Your task to perform on an android device: Open calendar and show me the third week of next month Image 0: 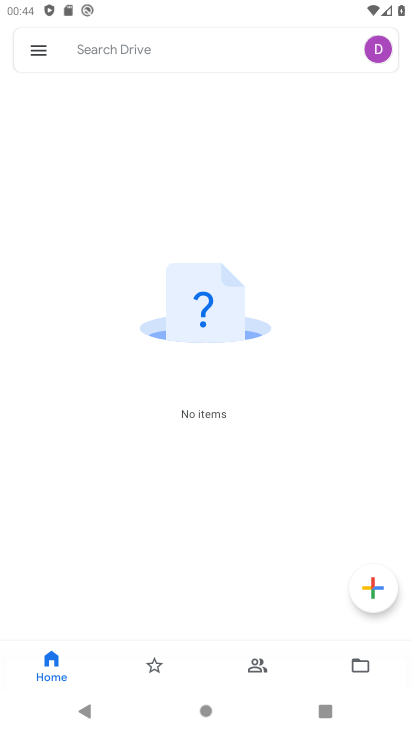
Step 0: press back button
Your task to perform on an android device: Open calendar and show me the third week of next month Image 1: 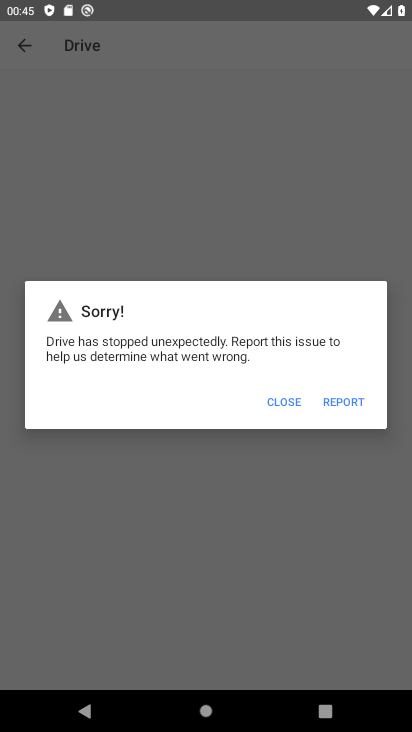
Step 1: press home button
Your task to perform on an android device: Open calendar and show me the third week of next month Image 2: 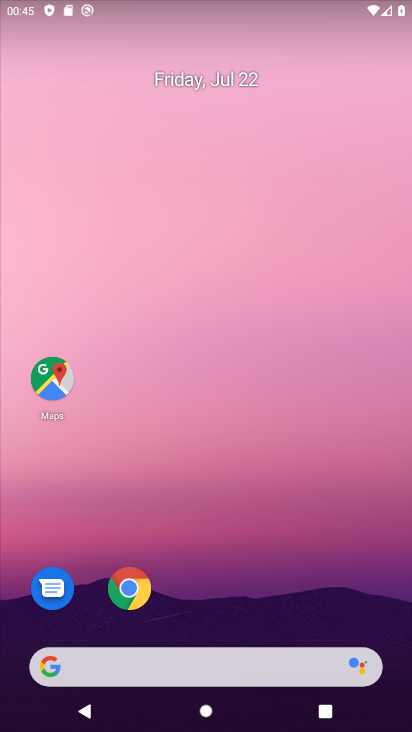
Step 2: drag from (227, 593) to (282, 0)
Your task to perform on an android device: Open calendar and show me the third week of next month Image 3: 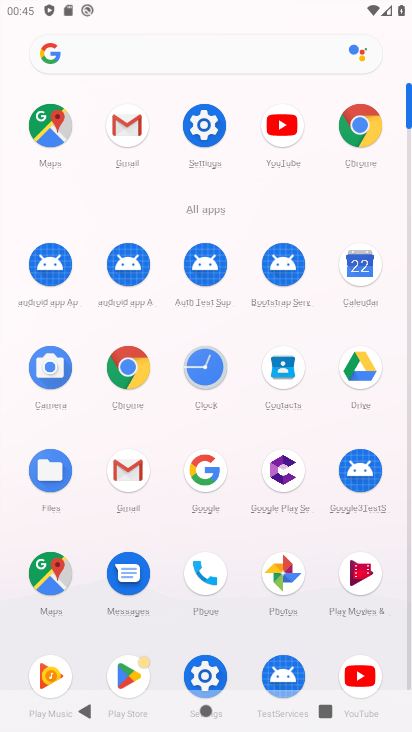
Step 3: click (366, 262)
Your task to perform on an android device: Open calendar and show me the third week of next month Image 4: 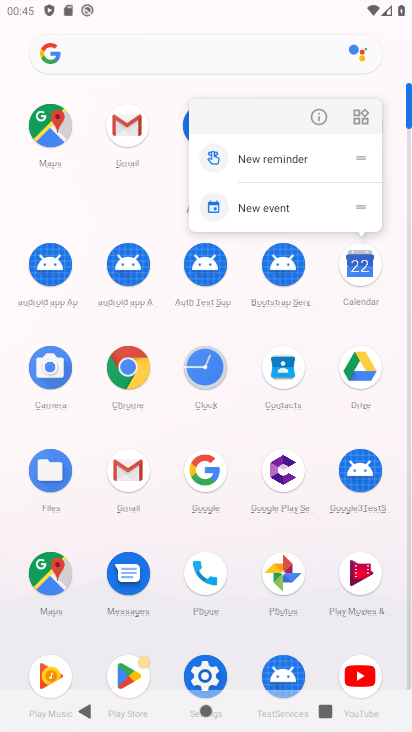
Step 4: click (270, 373)
Your task to perform on an android device: Open calendar and show me the third week of next month Image 5: 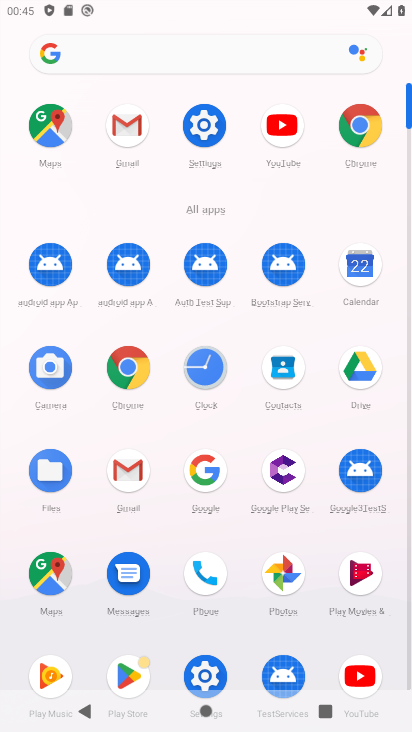
Step 5: click (276, 364)
Your task to perform on an android device: Open calendar and show me the third week of next month Image 6: 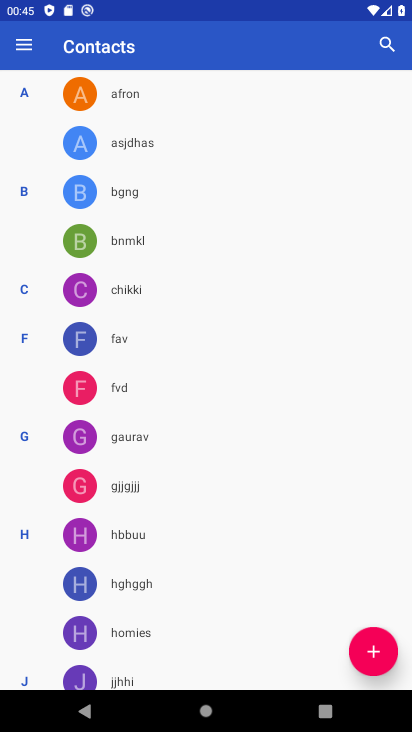
Step 6: press back button
Your task to perform on an android device: Open calendar and show me the third week of next month Image 7: 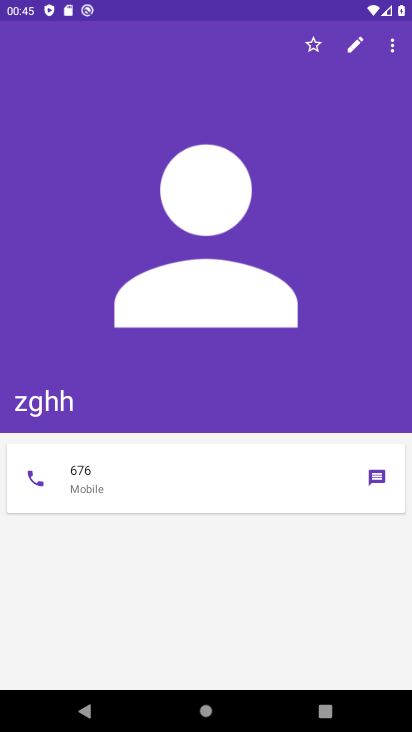
Step 7: press back button
Your task to perform on an android device: Open calendar and show me the third week of next month Image 8: 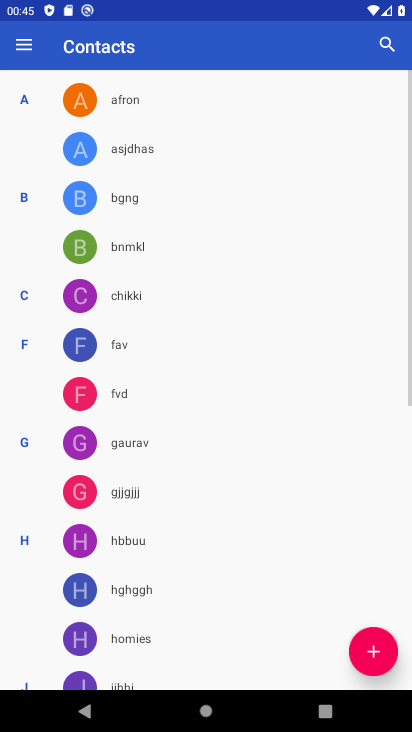
Step 8: press back button
Your task to perform on an android device: Open calendar and show me the third week of next month Image 9: 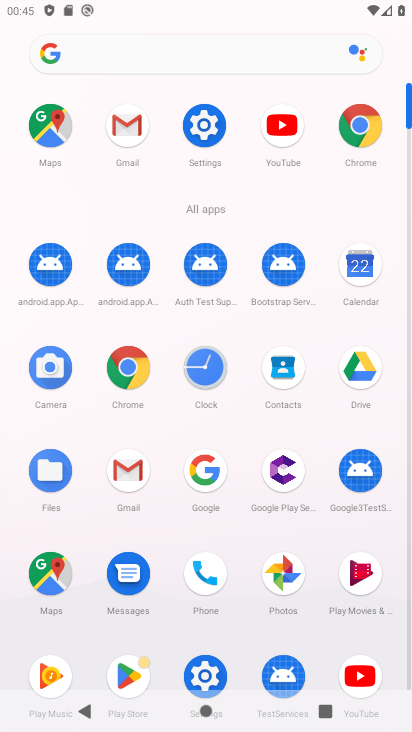
Step 9: click (345, 271)
Your task to perform on an android device: Open calendar and show me the third week of next month Image 10: 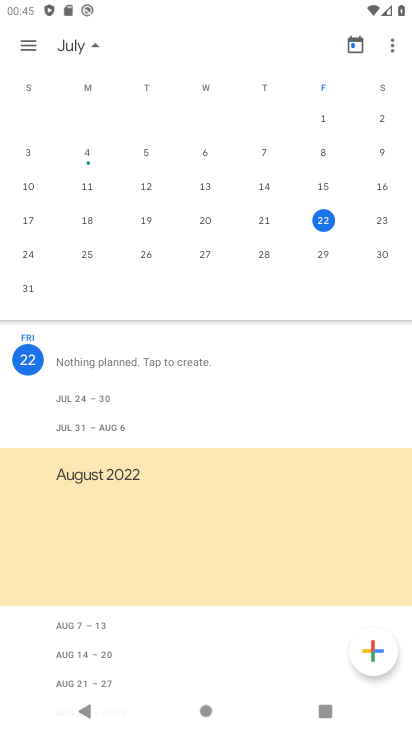
Step 10: drag from (350, 231) to (21, 250)
Your task to perform on an android device: Open calendar and show me the third week of next month Image 11: 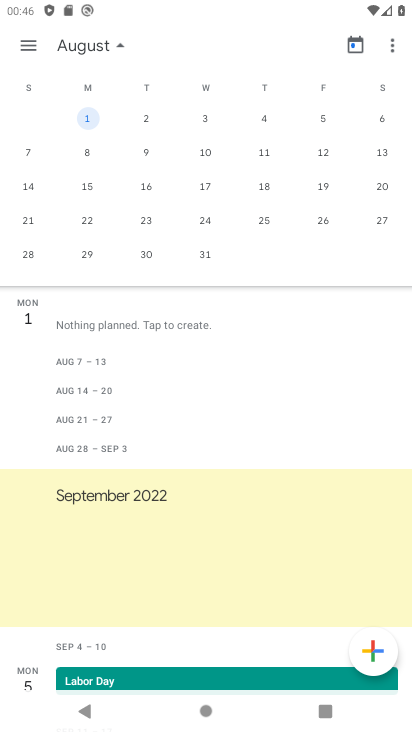
Step 11: click (80, 184)
Your task to perform on an android device: Open calendar and show me the third week of next month Image 12: 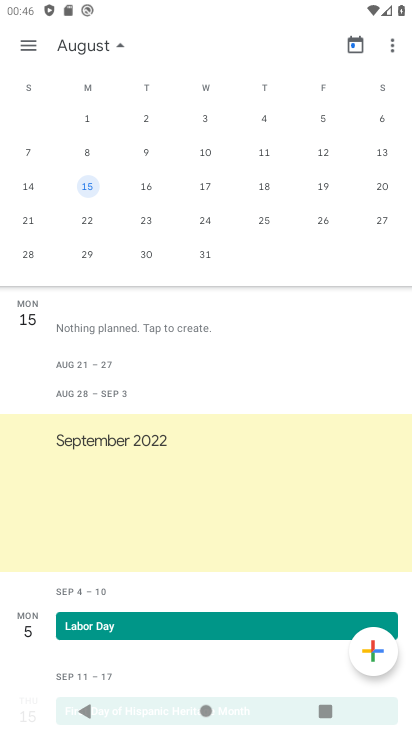
Step 12: task complete